Your task to perform on an android device: turn off notifications in google photos Image 0: 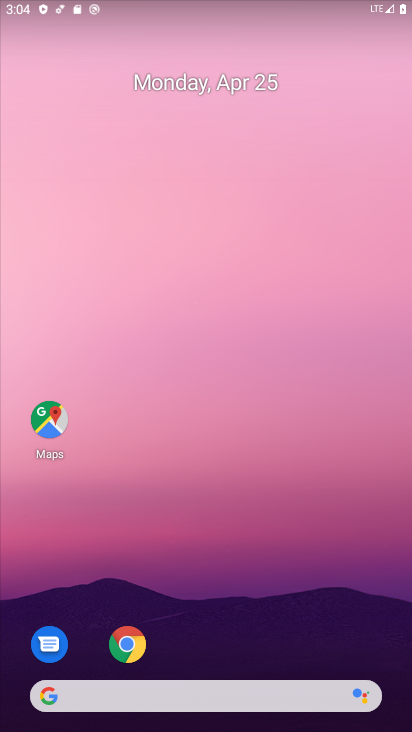
Step 0: drag from (229, 625) to (236, 89)
Your task to perform on an android device: turn off notifications in google photos Image 1: 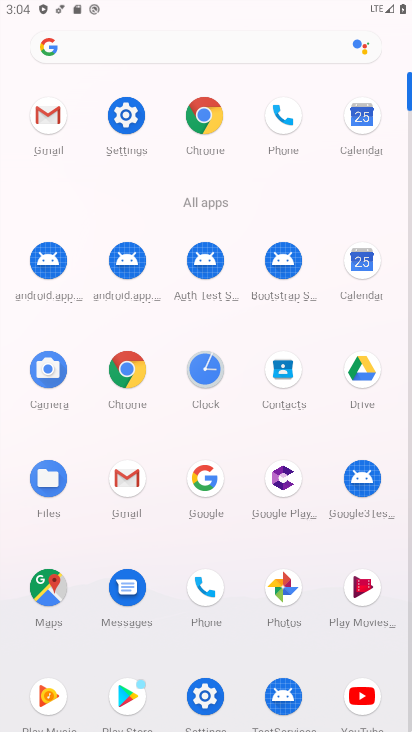
Step 1: click (287, 593)
Your task to perform on an android device: turn off notifications in google photos Image 2: 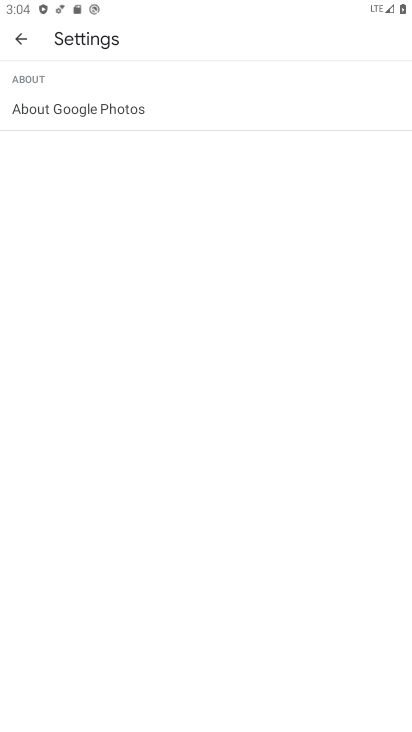
Step 2: press back button
Your task to perform on an android device: turn off notifications in google photos Image 3: 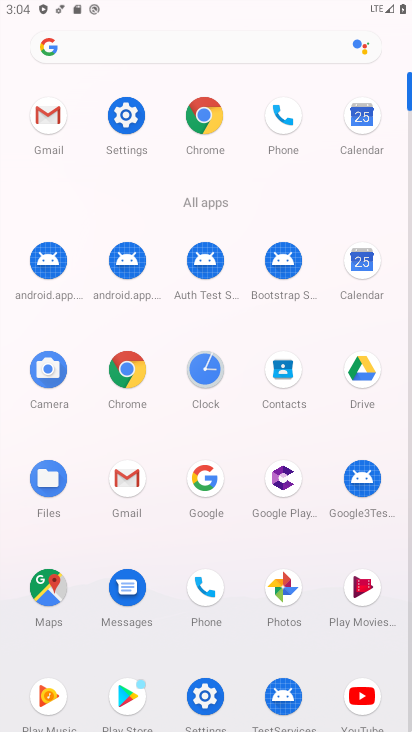
Step 3: click (272, 579)
Your task to perform on an android device: turn off notifications in google photos Image 4: 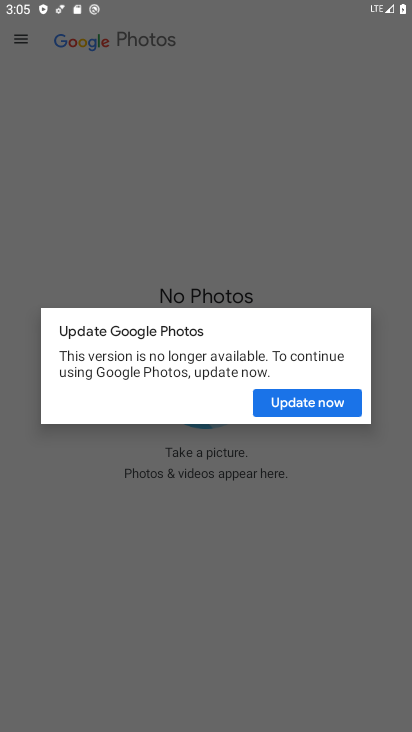
Step 4: click (332, 401)
Your task to perform on an android device: turn off notifications in google photos Image 5: 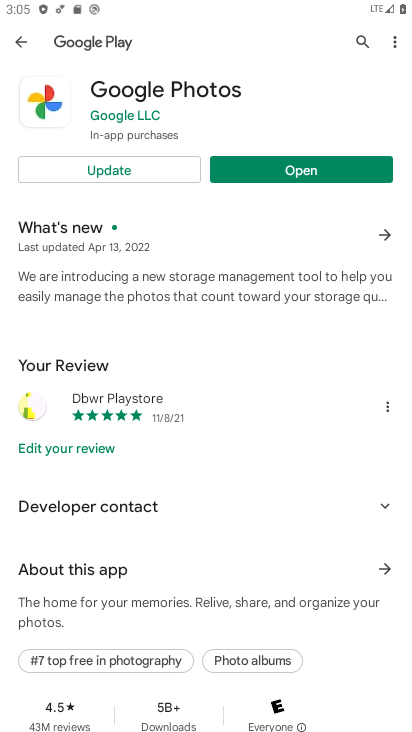
Step 5: click (144, 166)
Your task to perform on an android device: turn off notifications in google photos Image 6: 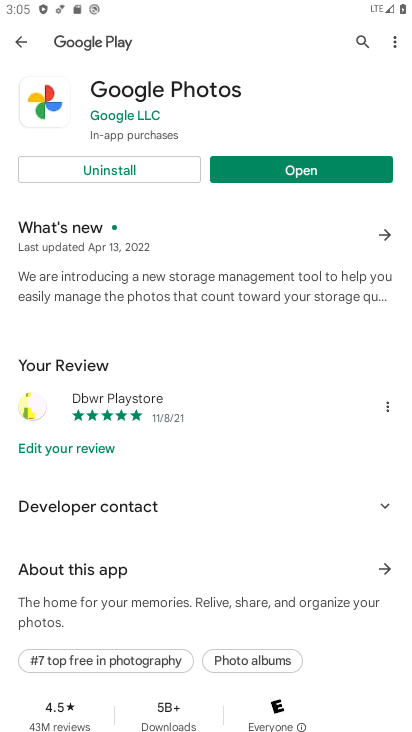
Step 6: click (318, 169)
Your task to perform on an android device: turn off notifications in google photos Image 7: 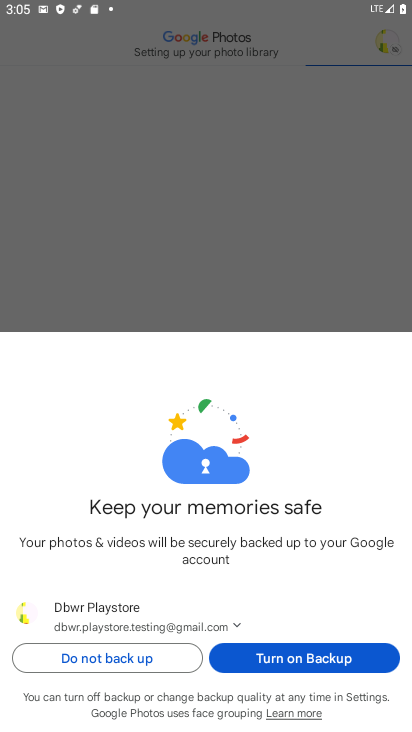
Step 7: click (298, 664)
Your task to perform on an android device: turn off notifications in google photos Image 8: 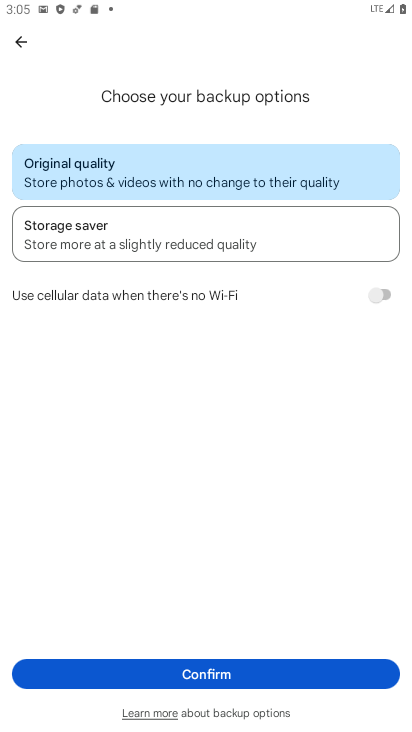
Step 8: click (298, 664)
Your task to perform on an android device: turn off notifications in google photos Image 9: 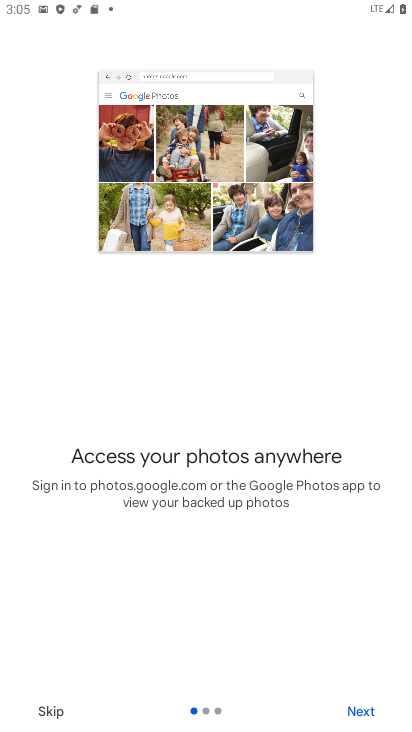
Step 9: click (57, 711)
Your task to perform on an android device: turn off notifications in google photos Image 10: 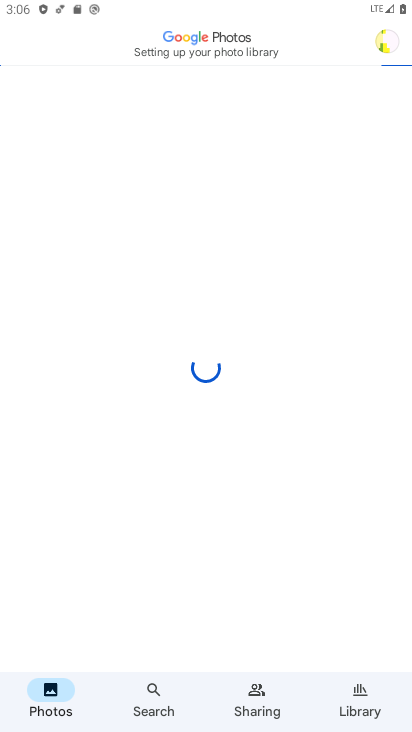
Step 10: click (386, 42)
Your task to perform on an android device: turn off notifications in google photos Image 11: 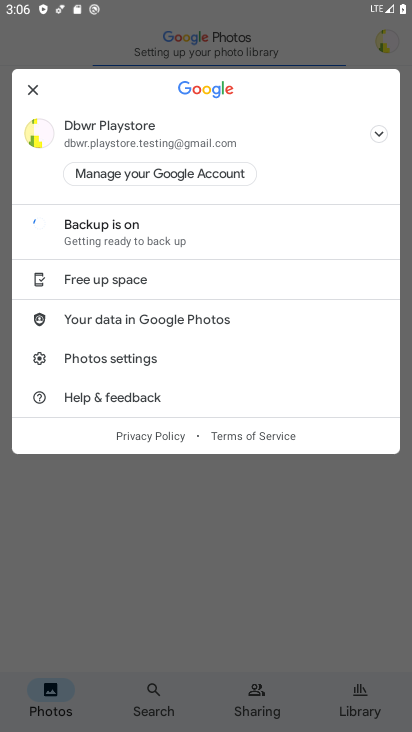
Step 11: click (154, 362)
Your task to perform on an android device: turn off notifications in google photos Image 12: 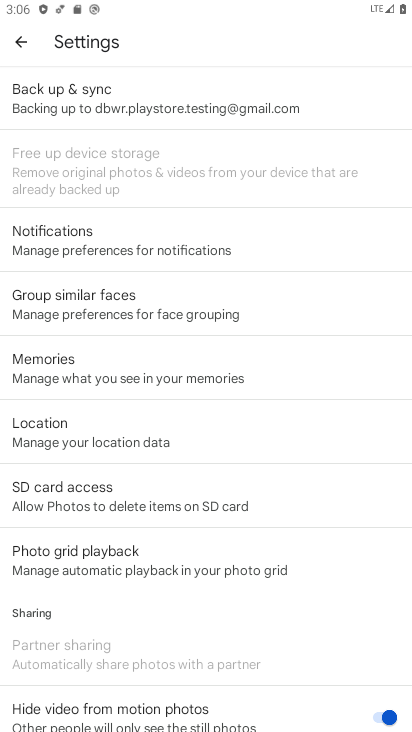
Step 12: click (236, 241)
Your task to perform on an android device: turn off notifications in google photos Image 13: 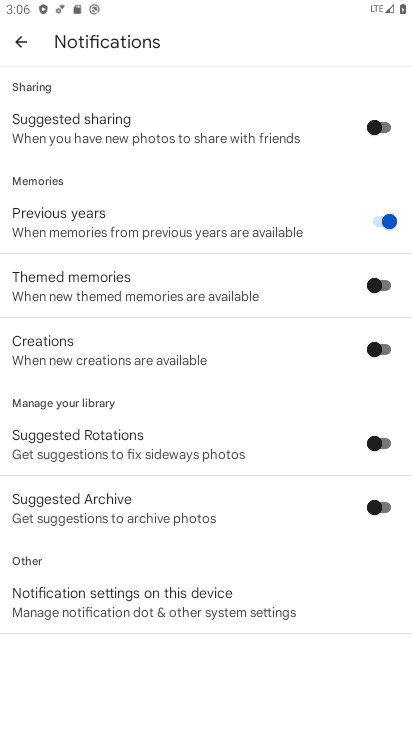
Step 13: click (233, 600)
Your task to perform on an android device: turn off notifications in google photos Image 14: 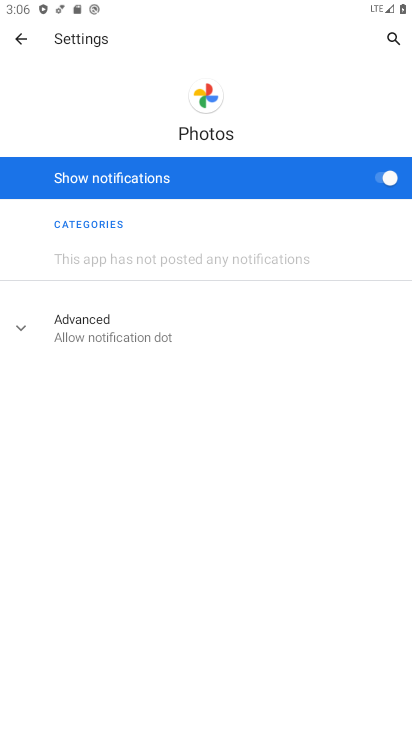
Step 14: click (383, 186)
Your task to perform on an android device: turn off notifications in google photos Image 15: 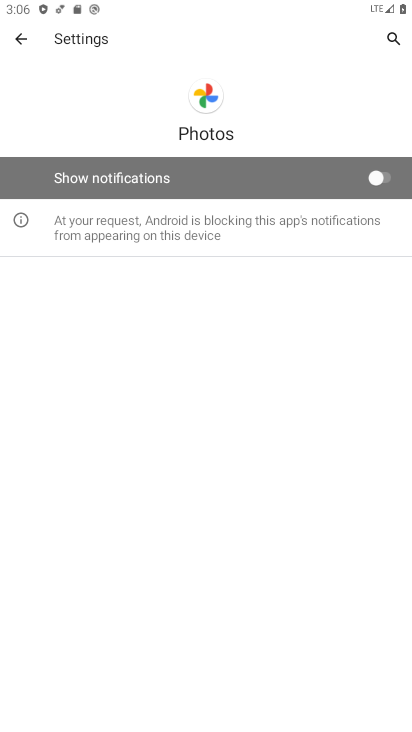
Step 15: task complete